Your task to perform on an android device: Is it going to rain today? Image 0: 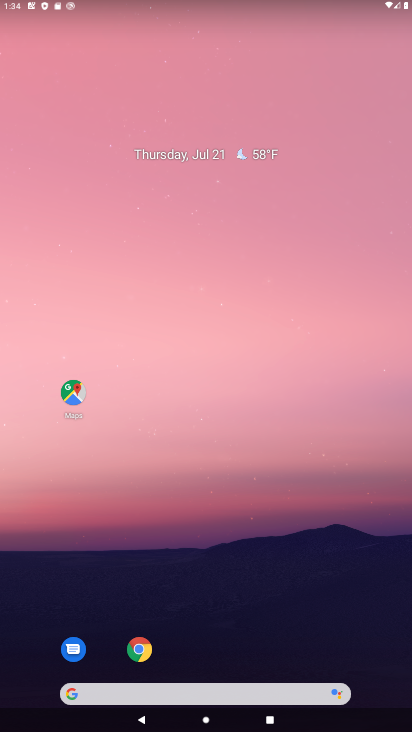
Step 0: drag from (238, 663) to (185, 116)
Your task to perform on an android device: Is it going to rain today? Image 1: 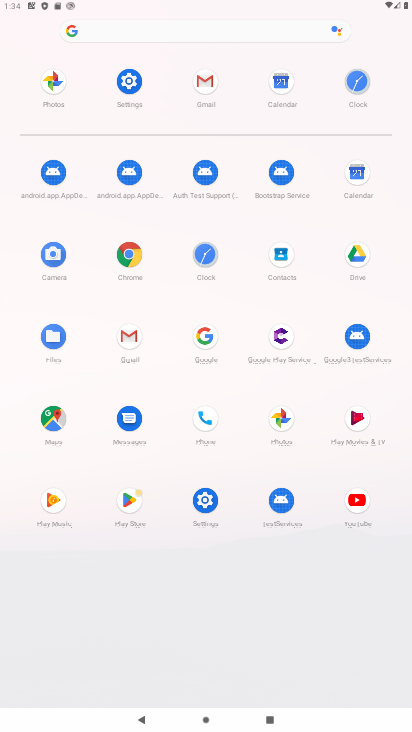
Step 1: click (142, 91)
Your task to perform on an android device: Is it going to rain today? Image 2: 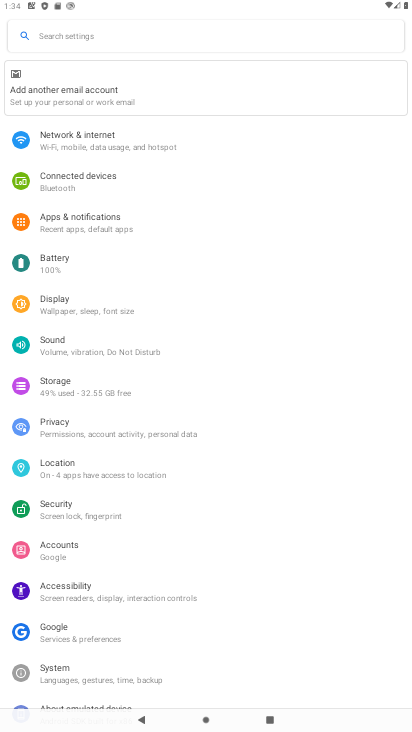
Step 2: press back button
Your task to perform on an android device: Is it going to rain today? Image 3: 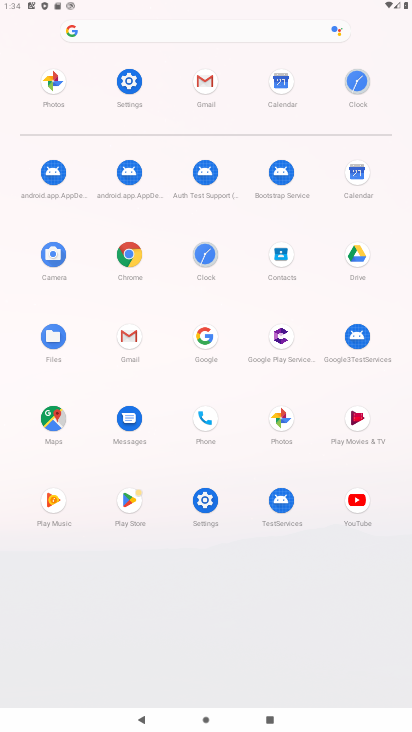
Step 3: click (181, 36)
Your task to perform on an android device: Is it going to rain today? Image 4: 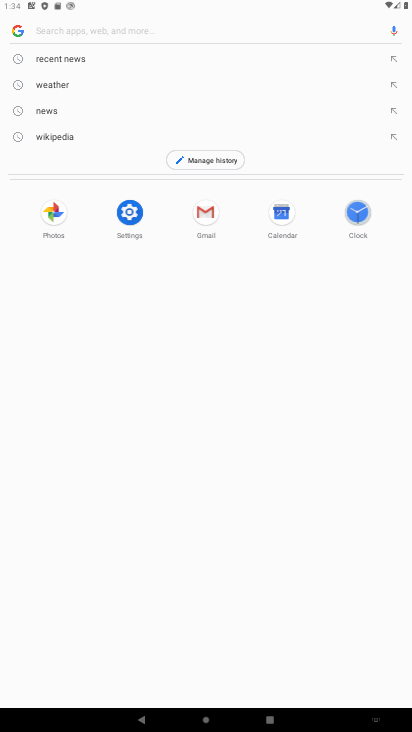
Step 4: type "rain"
Your task to perform on an android device: Is it going to rain today? Image 5: 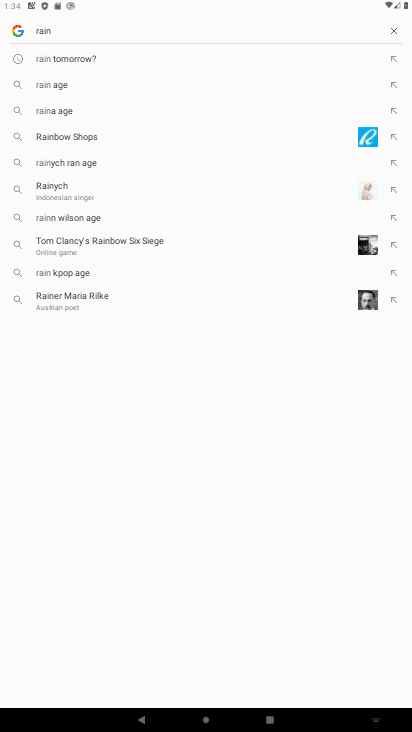
Step 5: click (232, 55)
Your task to perform on an android device: Is it going to rain today? Image 6: 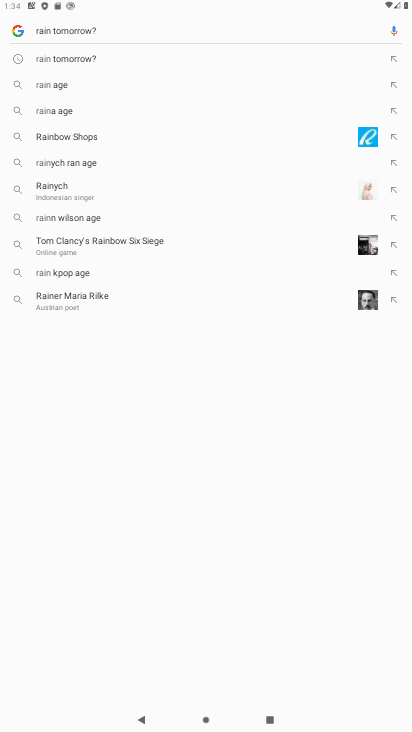
Step 6: task complete